Your task to perform on an android device: Open wifi settings Image 0: 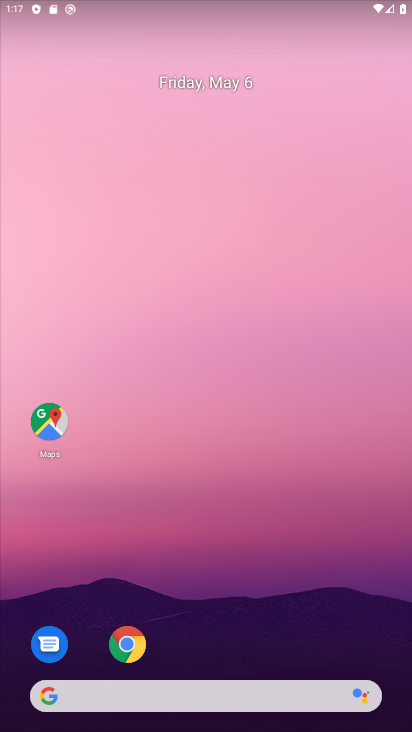
Step 0: drag from (77, 0) to (159, 593)
Your task to perform on an android device: Open wifi settings Image 1: 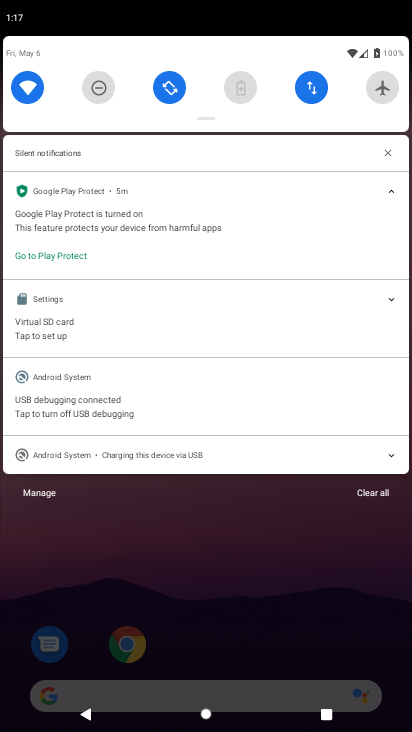
Step 1: click (26, 89)
Your task to perform on an android device: Open wifi settings Image 2: 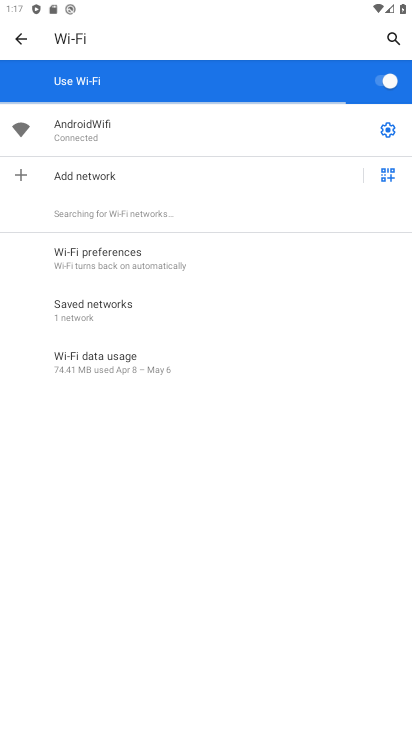
Step 2: task complete